Your task to perform on an android device: turn pop-ups on in chrome Image 0: 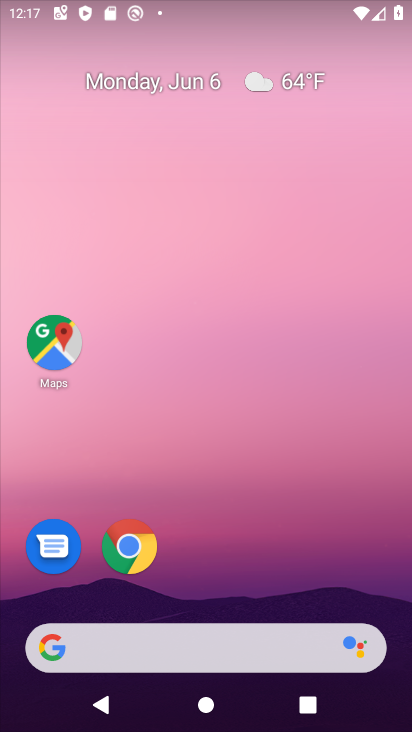
Step 0: click (137, 536)
Your task to perform on an android device: turn pop-ups on in chrome Image 1: 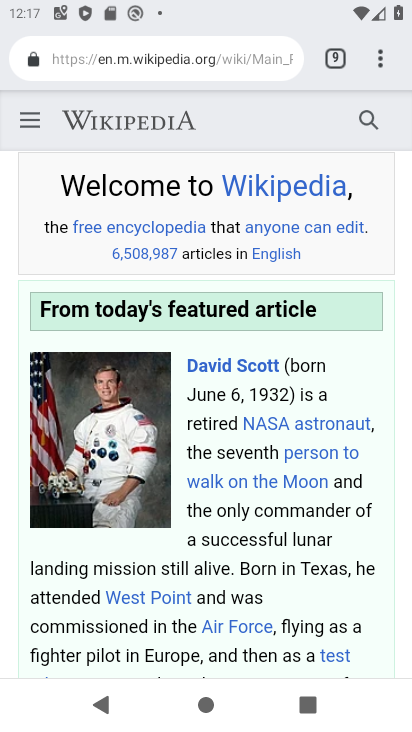
Step 1: click (381, 50)
Your task to perform on an android device: turn pop-ups on in chrome Image 2: 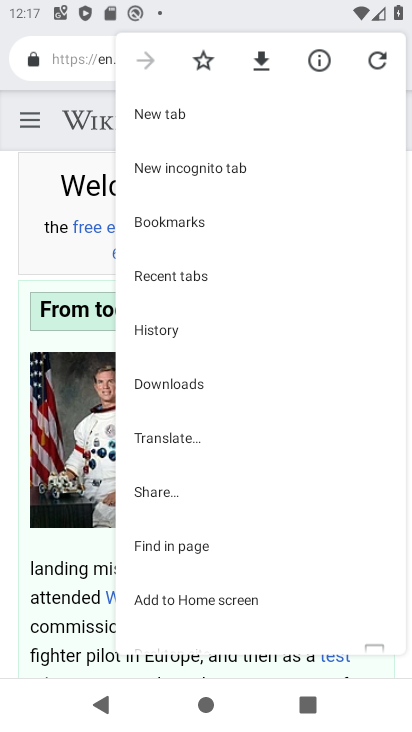
Step 2: drag from (183, 568) to (209, 217)
Your task to perform on an android device: turn pop-ups on in chrome Image 3: 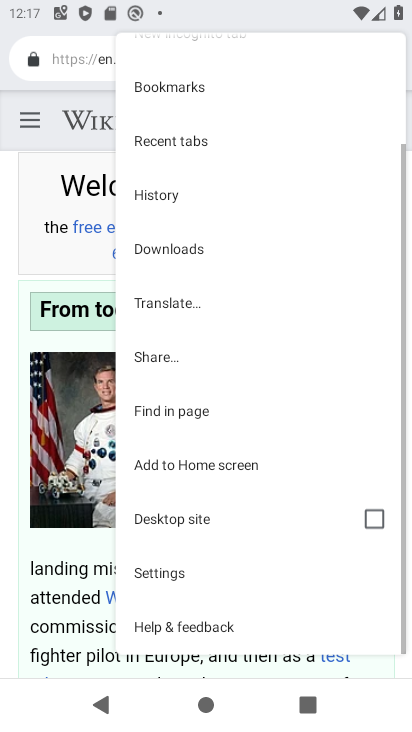
Step 3: click (171, 569)
Your task to perform on an android device: turn pop-ups on in chrome Image 4: 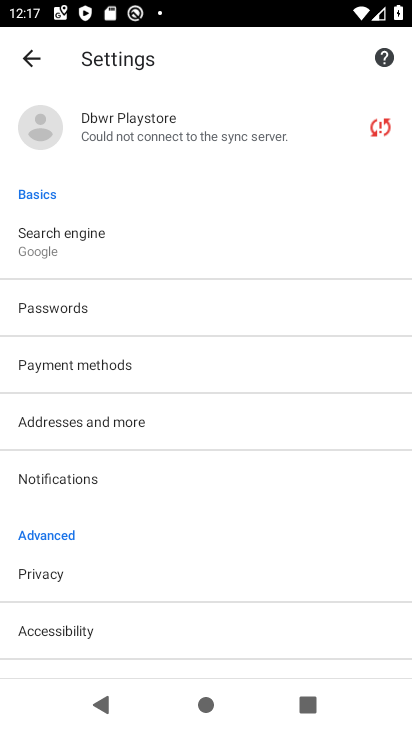
Step 4: drag from (200, 566) to (210, 232)
Your task to perform on an android device: turn pop-ups on in chrome Image 5: 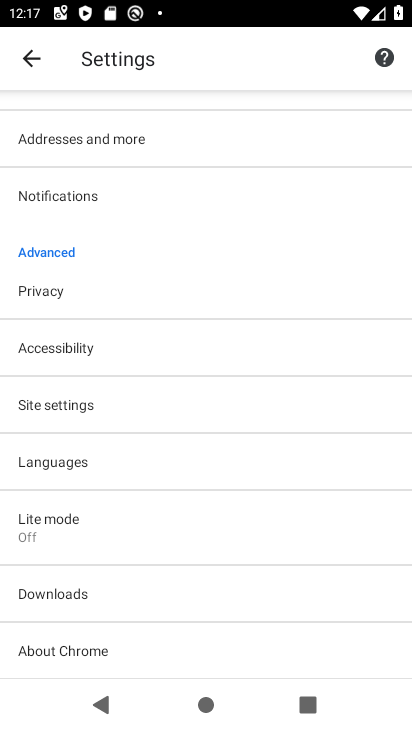
Step 5: click (105, 406)
Your task to perform on an android device: turn pop-ups on in chrome Image 6: 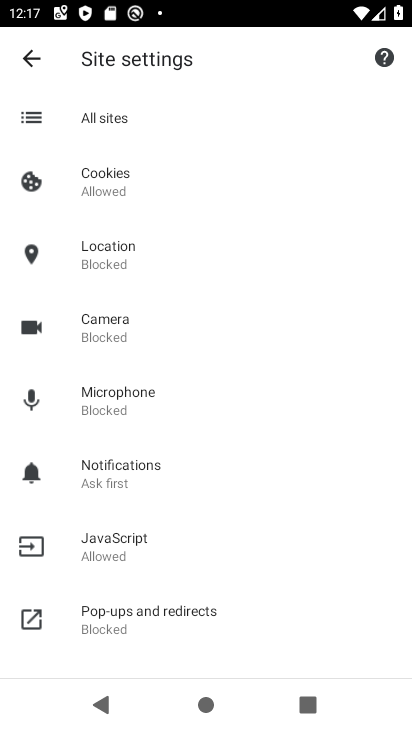
Step 6: click (148, 605)
Your task to perform on an android device: turn pop-ups on in chrome Image 7: 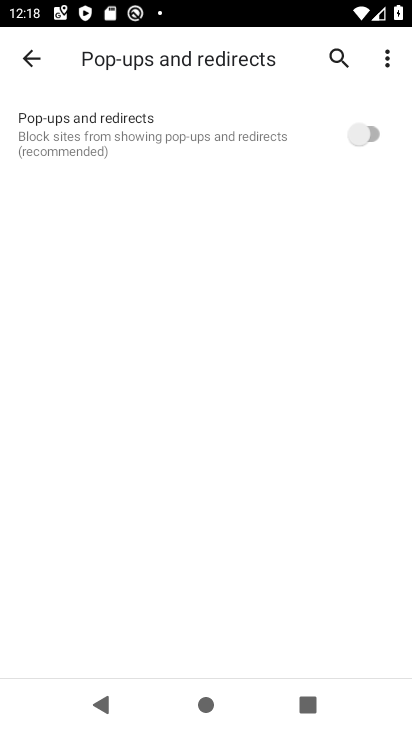
Step 7: click (366, 128)
Your task to perform on an android device: turn pop-ups on in chrome Image 8: 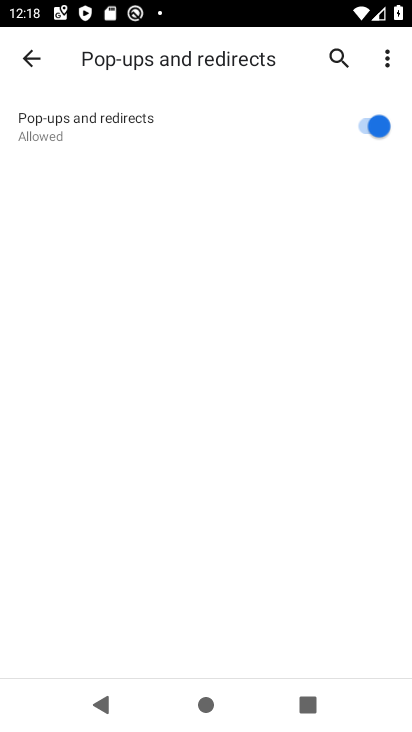
Step 8: task complete